Your task to perform on an android device: uninstall "Google Play Games" Image 0: 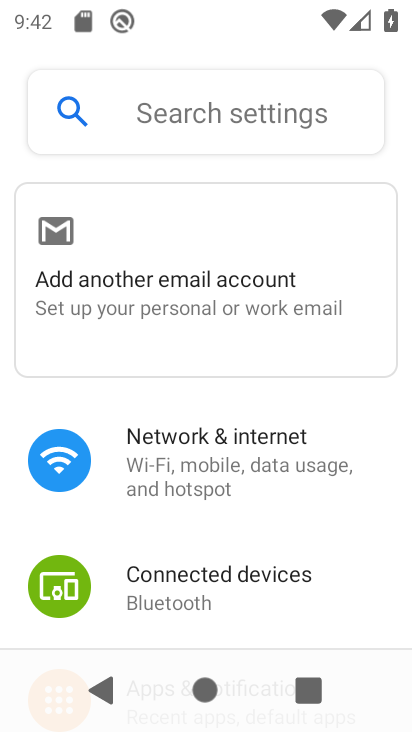
Step 0: press home button
Your task to perform on an android device: uninstall "Google Play Games" Image 1: 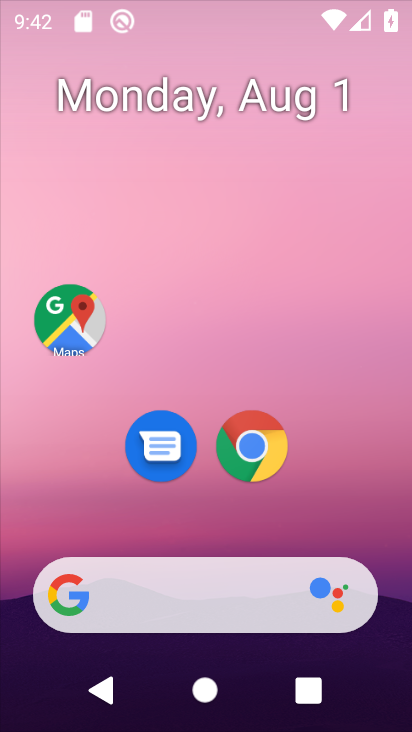
Step 1: drag from (213, 531) to (213, 99)
Your task to perform on an android device: uninstall "Google Play Games" Image 2: 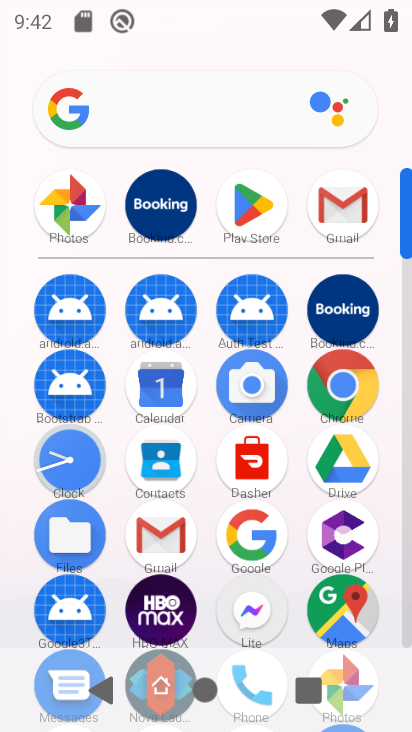
Step 2: click (259, 188)
Your task to perform on an android device: uninstall "Google Play Games" Image 3: 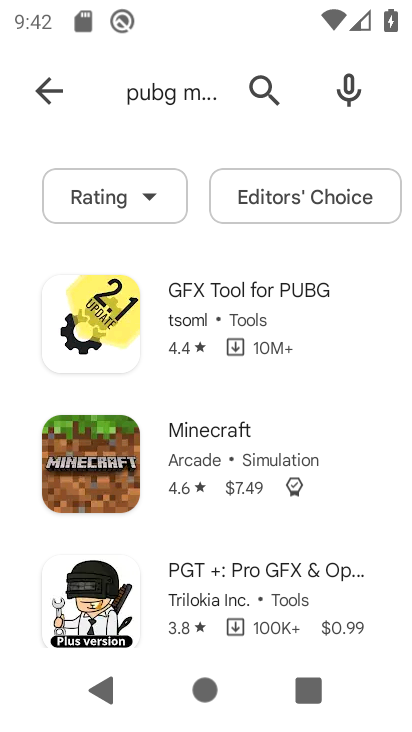
Step 3: click (269, 95)
Your task to perform on an android device: uninstall "Google Play Games" Image 4: 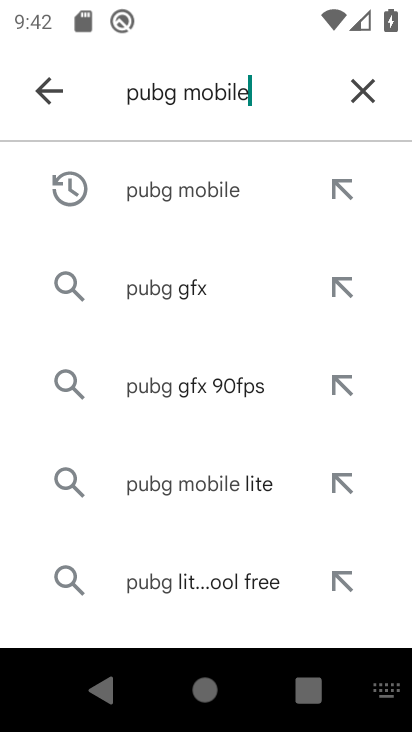
Step 4: click (360, 78)
Your task to perform on an android device: uninstall "Google Play Games" Image 5: 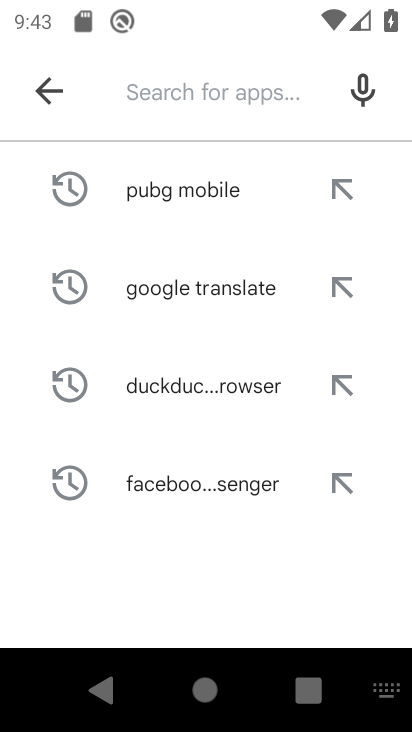
Step 5: type "Google Play Games"
Your task to perform on an android device: uninstall "Google Play Games" Image 6: 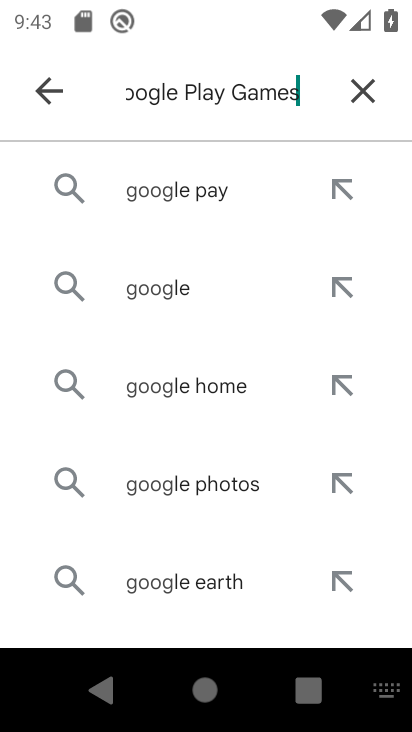
Step 6: type ""
Your task to perform on an android device: uninstall "Google Play Games" Image 7: 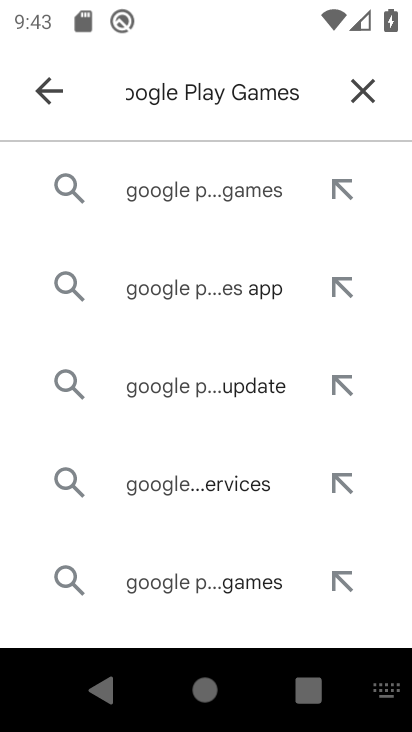
Step 7: click (255, 186)
Your task to perform on an android device: uninstall "Google Play Games" Image 8: 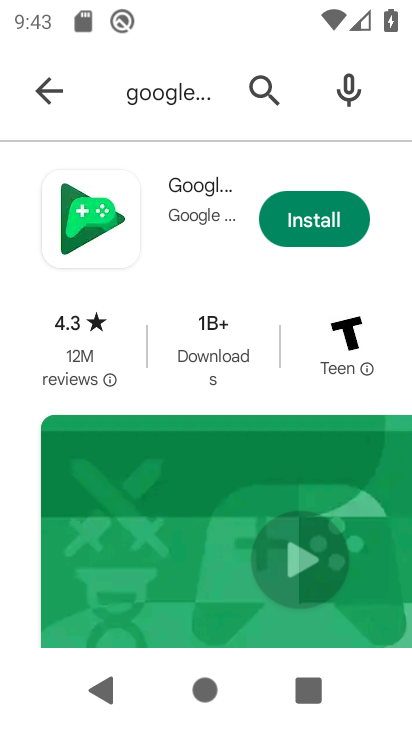
Step 8: task complete